Your task to perform on an android device: read, delete, or share a saved page in the chrome app Image 0: 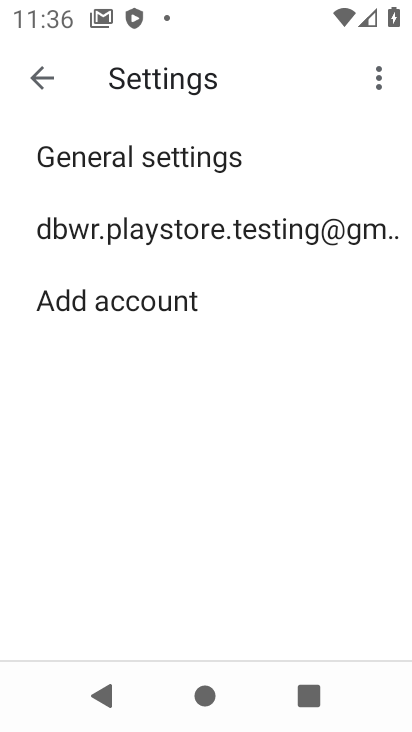
Step 0: click (229, 226)
Your task to perform on an android device: read, delete, or share a saved page in the chrome app Image 1: 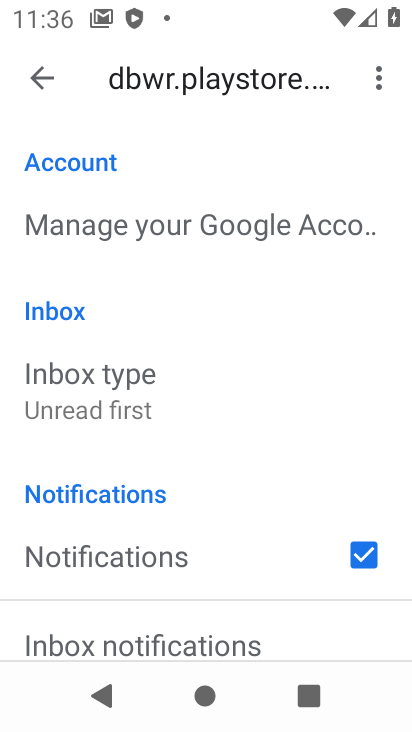
Step 1: click (39, 83)
Your task to perform on an android device: read, delete, or share a saved page in the chrome app Image 2: 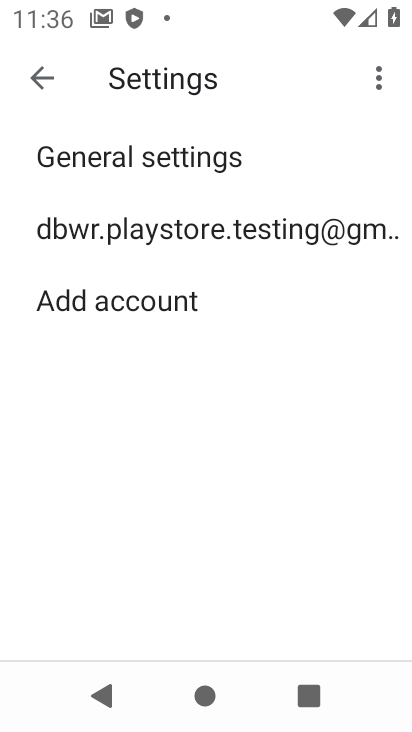
Step 2: press home button
Your task to perform on an android device: read, delete, or share a saved page in the chrome app Image 3: 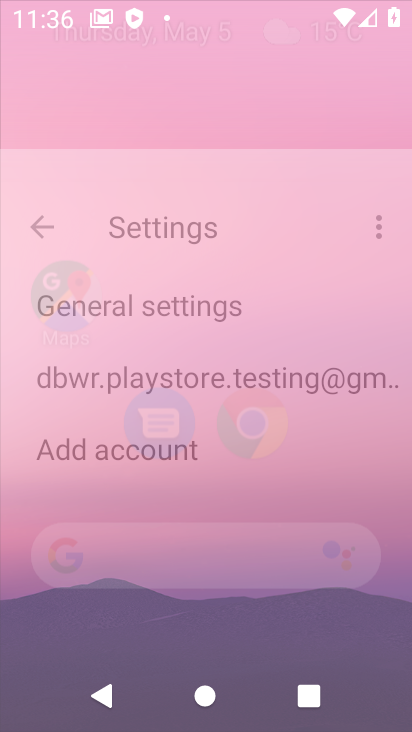
Step 3: press home button
Your task to perform on an android device: read, delete, or share a saved page in the chrome app Image 4: 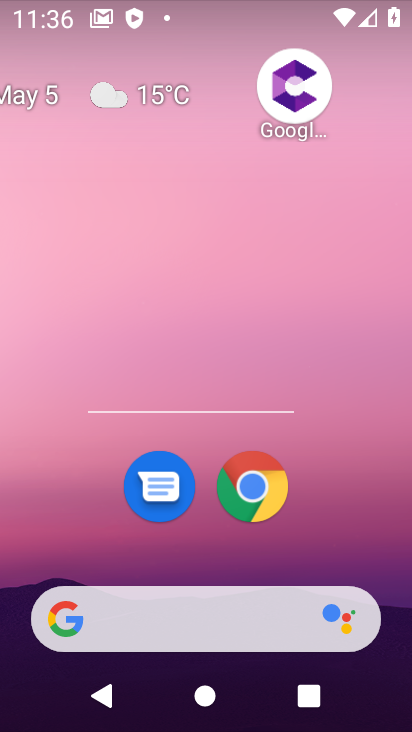
Step 4: drag from (373, 517) to (259, 330)
Your task to perform on an android device: read, delete, or share a saved page in the chrome app Image 5: 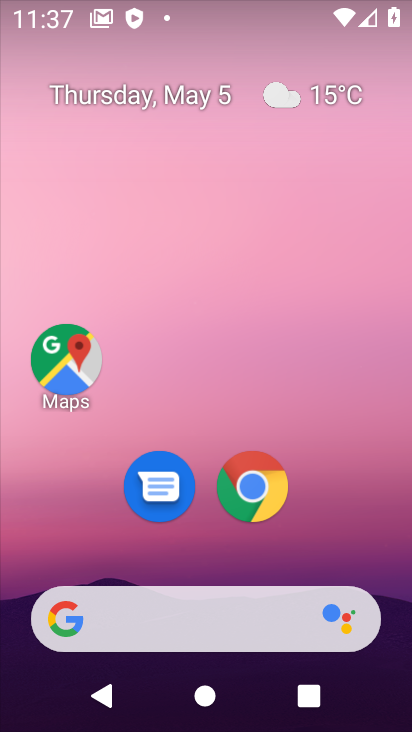
Step 5: drag from (358, 553) to (342, 375)
Your task to perform on an android device: read, delete, or share a saved page in the chrome app Image 6: 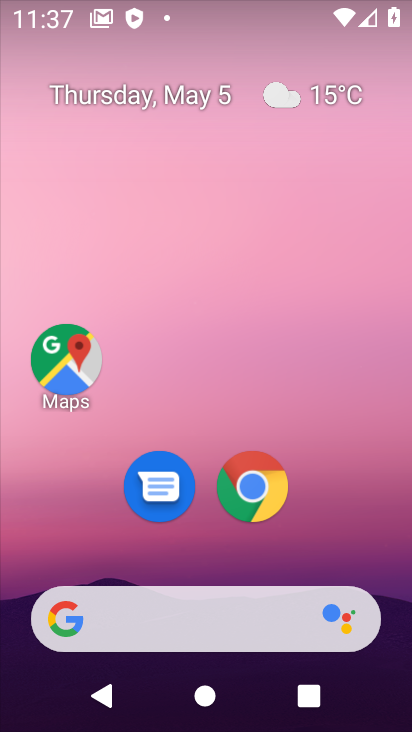
Step 6: drag from (294, 439) to (93, 37)
Your task to perform on an android device: read, delete, or share a saved page in the chrome app Image 7: 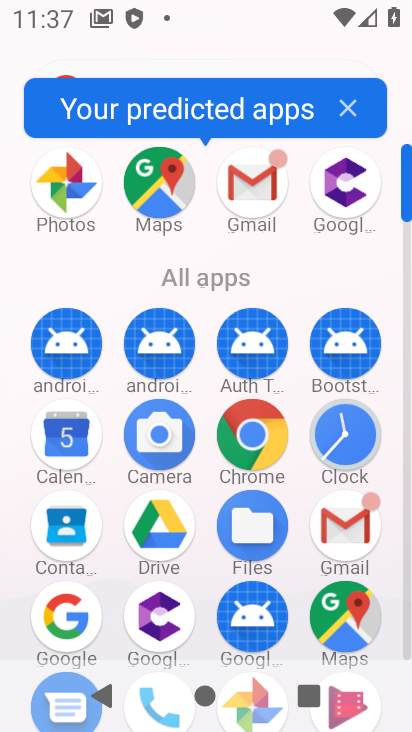
Step 7: click (241, 445)
Your task to perform on an android device: read, delete, or share a saved page in the chrome app Image 8: 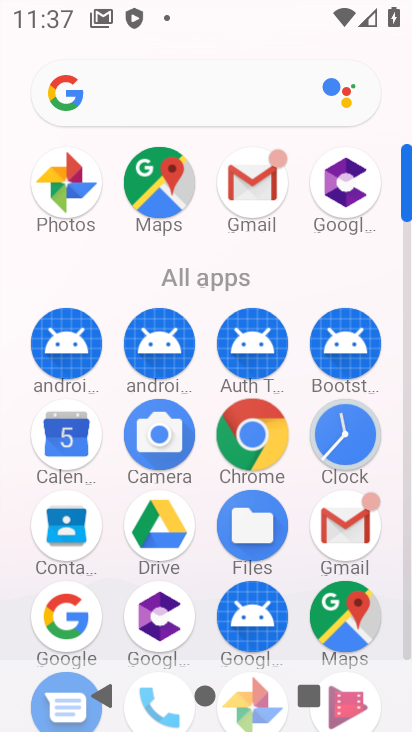
Step 8: click (244, 445)
Your task to perform on an android device: read, delete, or share a saved page in the chrome app Image 9: 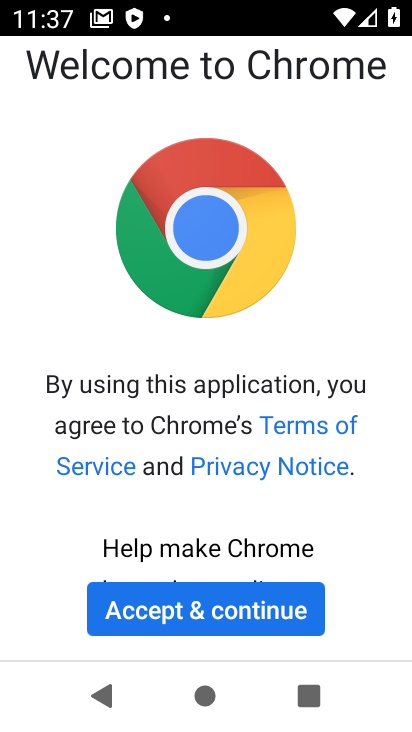
Step 9: click (258, 600)
Your task to perform on an android device: read, delete, or share a saved page in the chrome app Image 10: 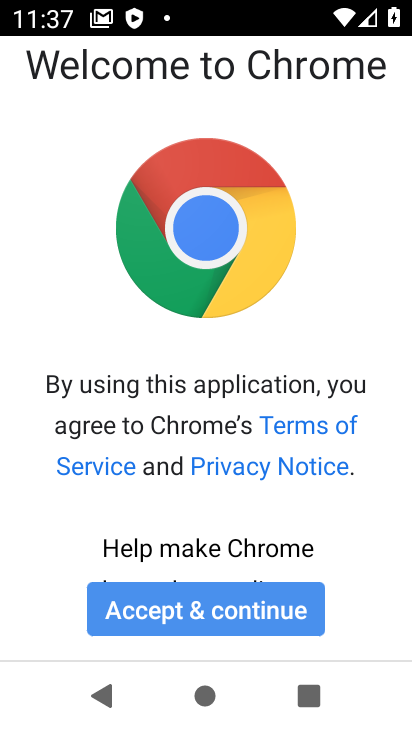
Step 10: click (258, 600)
Your task to perform on an android device: read, delete, or share a saved page in the chrome app Image 11: 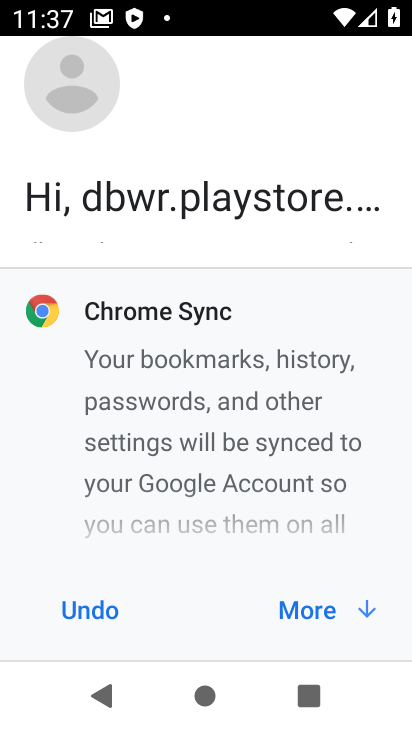
Step 11: click (312, 609)
Your task to perform on an android device: read, delete, or share a saved page in the chrome app Image 12: 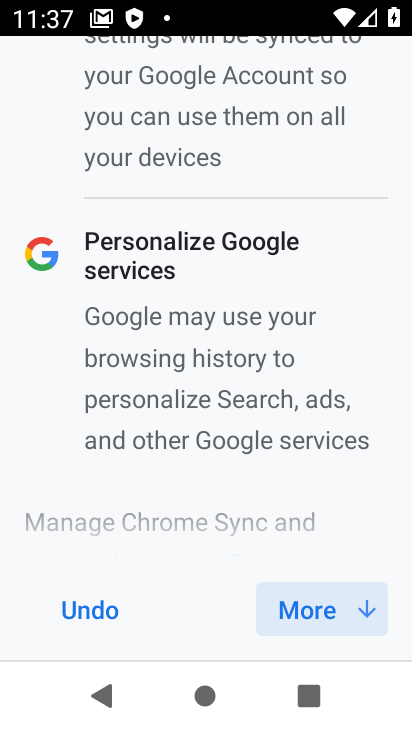
Step 12: click (336, 618)
Your task to perform on an android device: read, delete, or share a saved page in the chrome app Image 13: 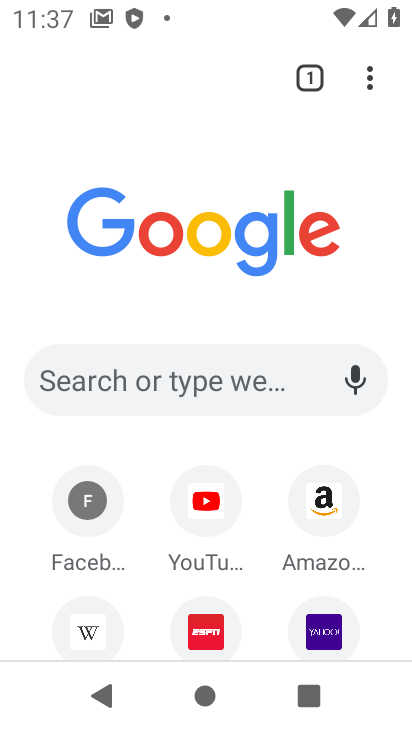
Step 13: click (380, 71)
Your task to perform on an android device: read, delete, or share a saved page in the chrome app Image 14: 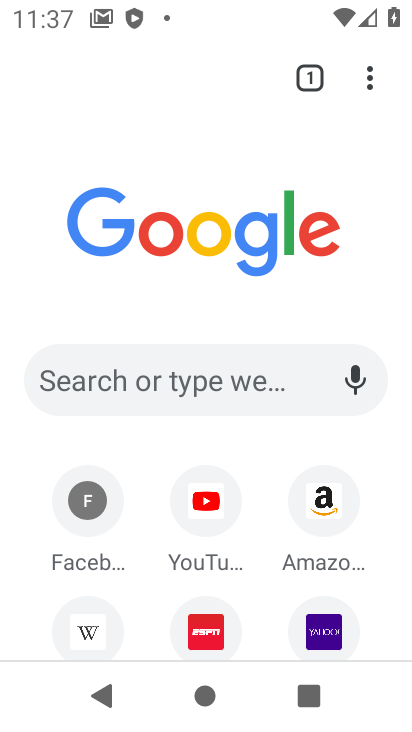
Step 14: click (366, 82)
Your task to perform on an android device: read, delete, or share a saved page in the chrome app Image 15: 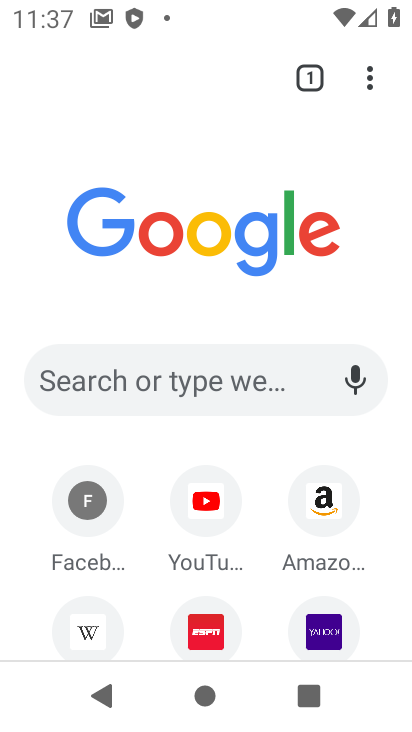
Step 15: click (368, 82)
Your task to perform on an android device: read, delete, or share a saved page in the chrome app Image 16: 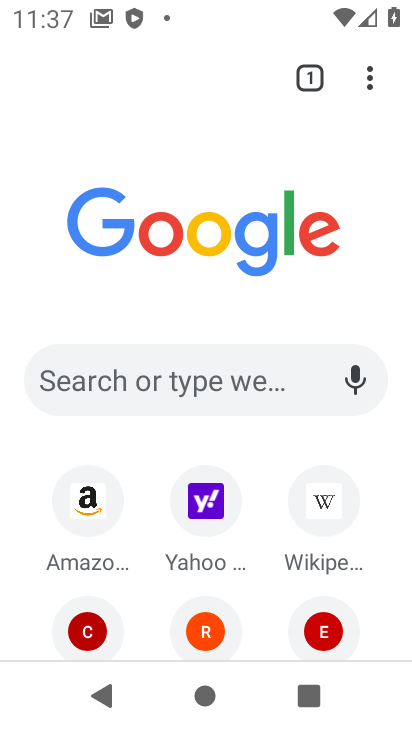
Step 16: drag from (362, 83) to (150, 517)
Your task to perform on an android device: read, delete, or share a saved page in the chrome app Image 17: 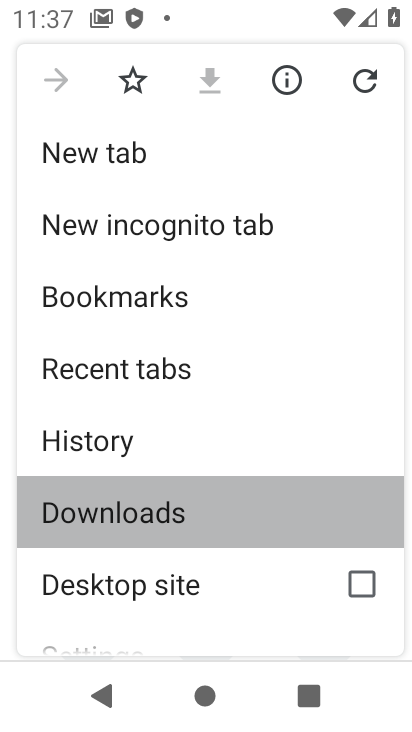
Step 17: click (150, 517)
Your task to perform on an android device: read, delete, or share a saved page in the chrome app Image 18: 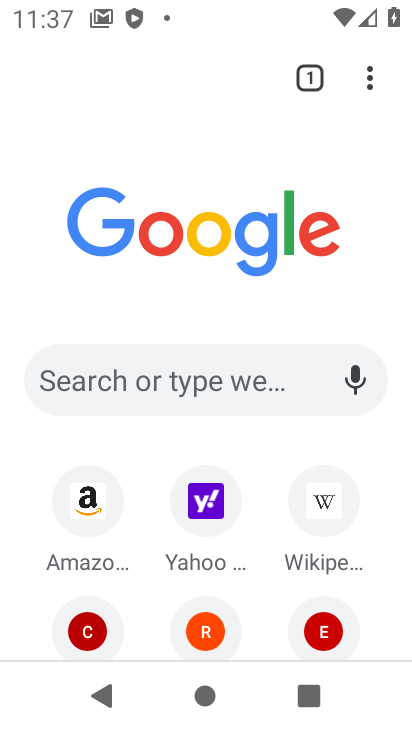
Step 18: click (150, 517)
Your task to perform on an android device: read, delete, or share a saved page in the chrome app Image 19: 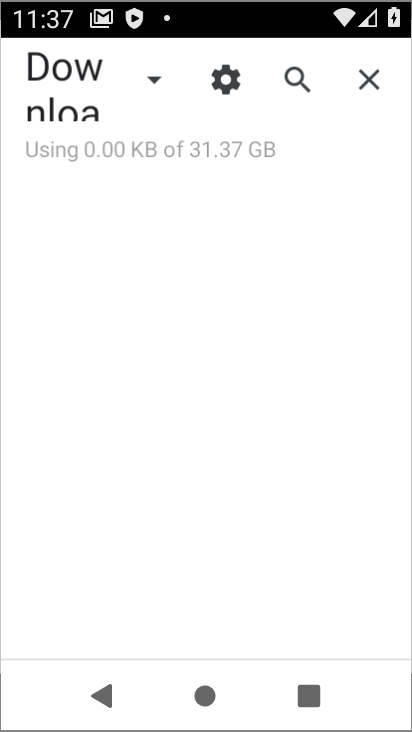
Step 19: click (150, 517)
Your task to perform on an android device: read, delete, or share a saved page in the chrome app Image 20: 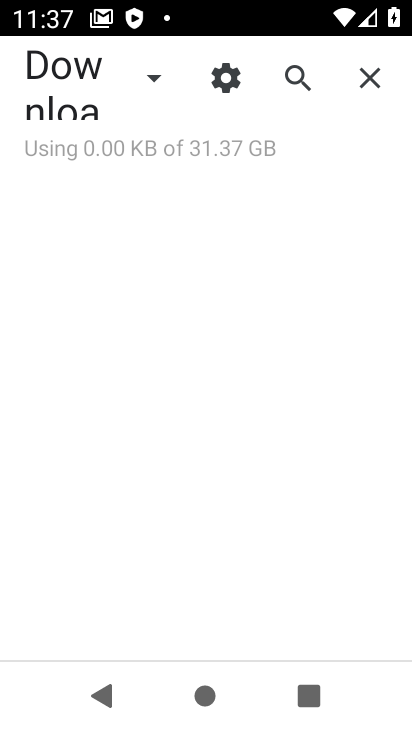
Step 20: click (153, 79)
Your task to perform on an android device: read, delete, or share a saved page in the chrome app Image 21: 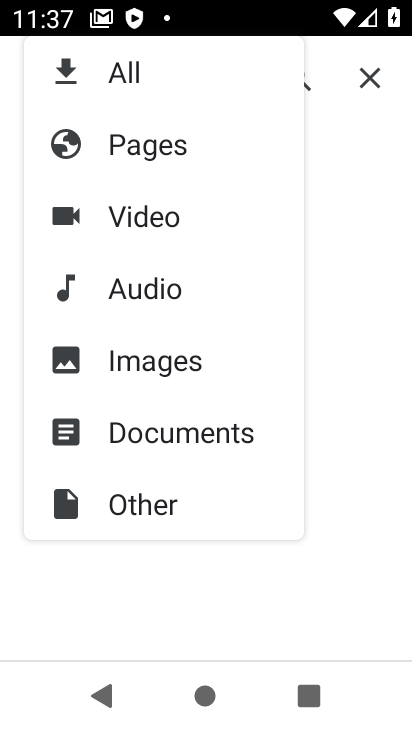
Step 21: click (129, 148)
Your task to perform on an android device: read, delete, or share a saved page in the chrome app Image 22: 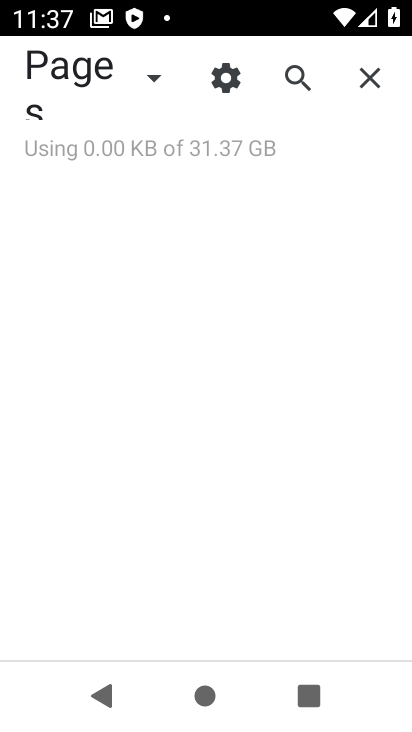
Step 22: task complete